Your task to perform on an android device: delete a single message in the gmail app Image 0: 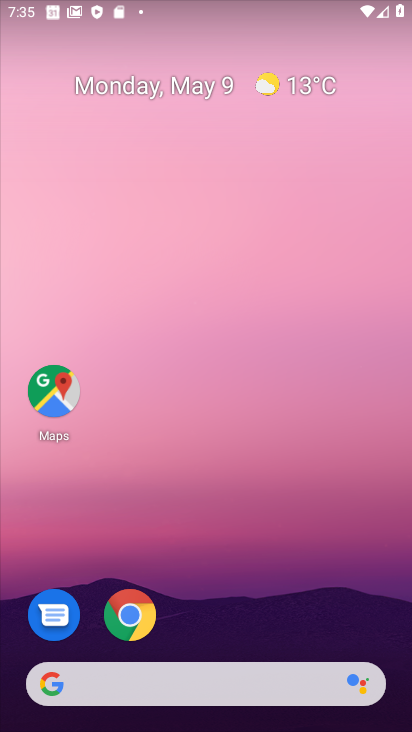
Step 0: drag from (230, 613) to (334, 54)
Your task to perform on an android device: delete a single message in the gmail app Image 1: 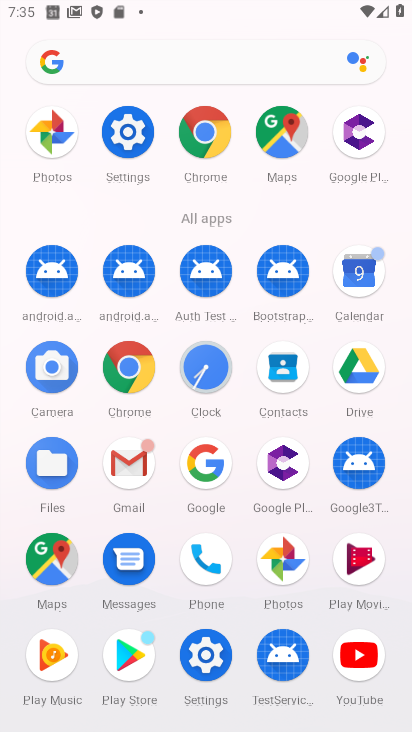
Step 1: click (131, 479)
Your task to perform on an android device: delete a single message in the gmail app Image 2: 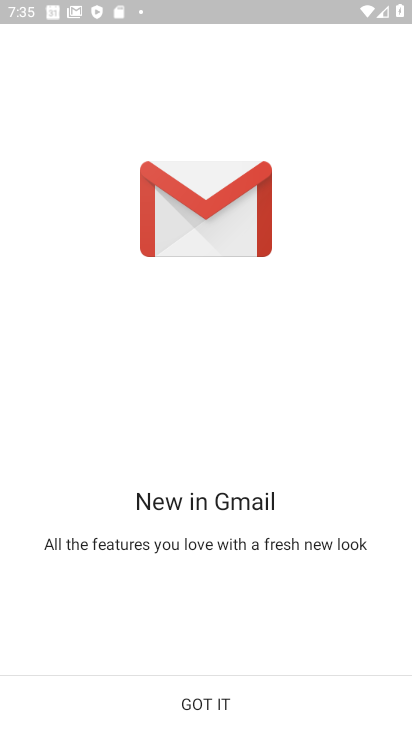
Step 2: click (158, 699)
Your task to perform on an android device: delete a single message in the gmail app Image 3: 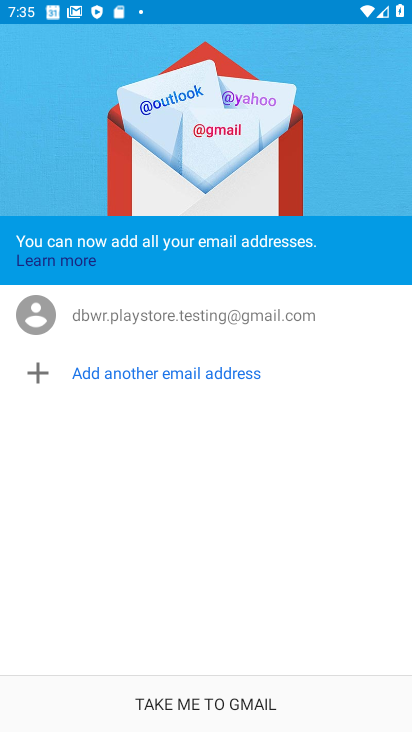
Step 3: click (158, 699)
Your task to perform on an android device: delete a single message in the gmail app Image 4: 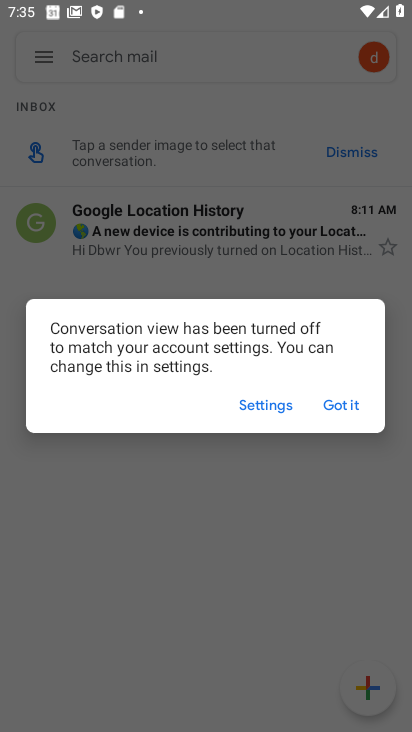
Step 4: click (339, 410)
Your task to perform on an android device: delete a single message in the gmail app Image 5: 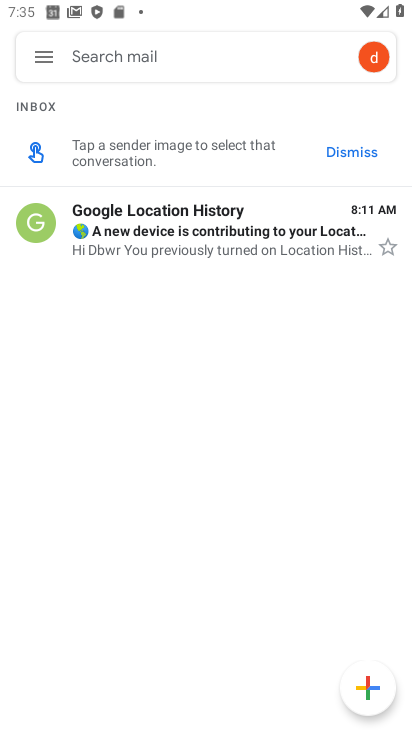
Step 5: click (45, 231)
Your task to perform on an android device: delete a single message in the gmail app Image 6: 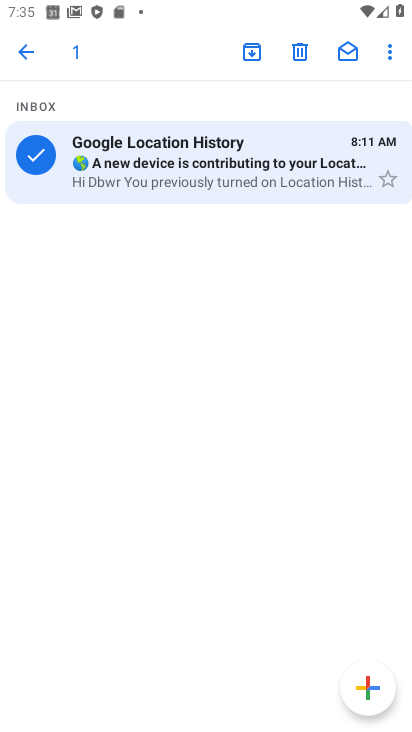
Step 6: click (292, 51)
Your task to perform on an android device: delete a single message in the gmail app Image 7: 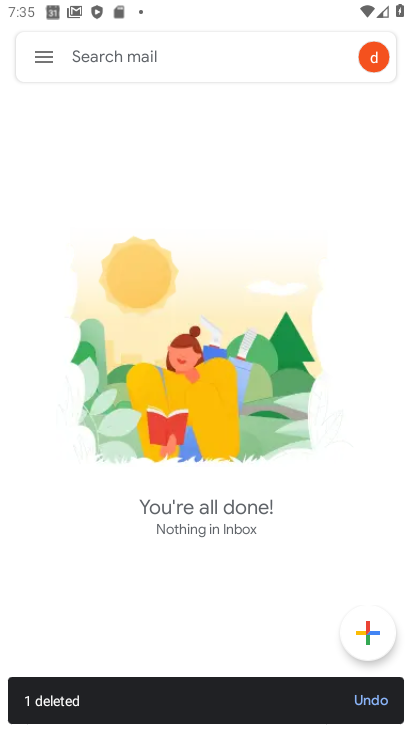
Step 7: task complete